Your task to perform on an android device: check storage Image 0: 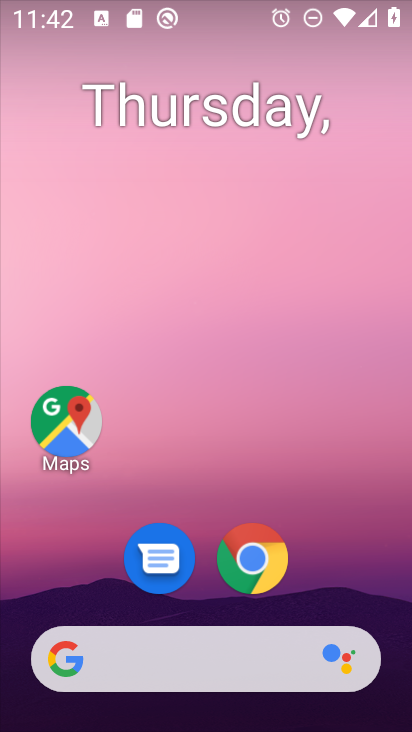
Step 0: drag from (395, 601) to (298, 220)
Your task to perform on an android device: check storage Image 1: 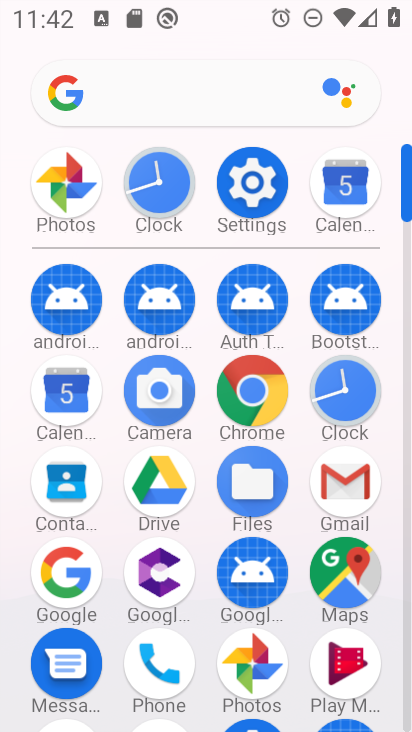
Step 1: click (406, 690)
Your task to perform on an android device: check storage Image 2: 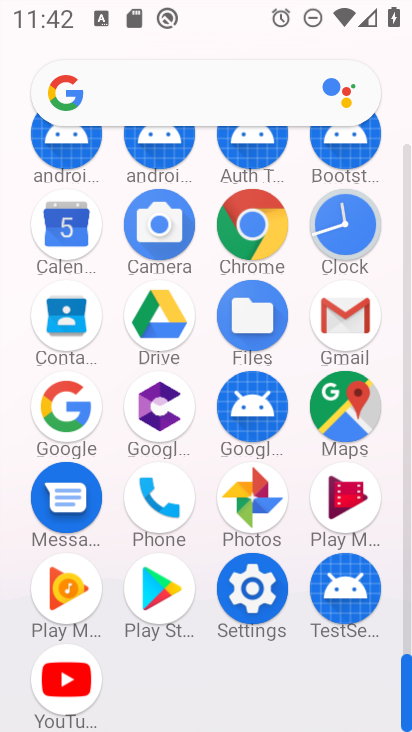
Step 2: click (252, 589)
Your task to perform on an android device: check storage Image 3: 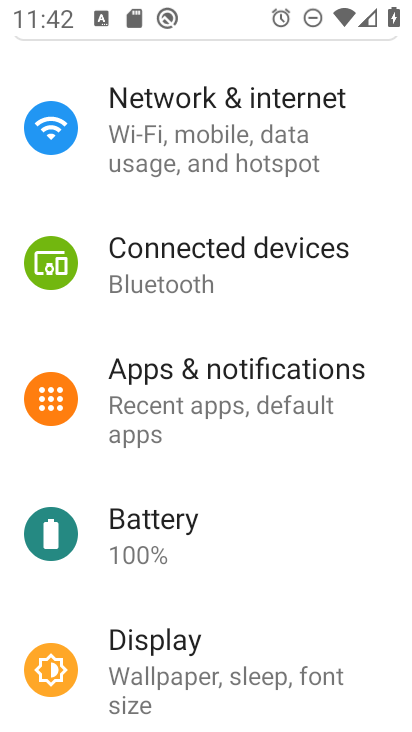
Step 3: drag from (298, 601) to (343, 302)
Your task to perform on an android device: check storage Image 4: 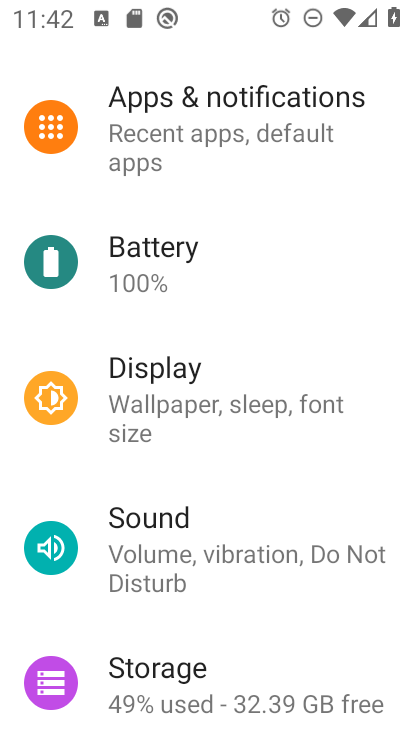
Step 4: drag from (321, 573) to (340, 271)
Your task to perform on an android device: check storage Image 5: 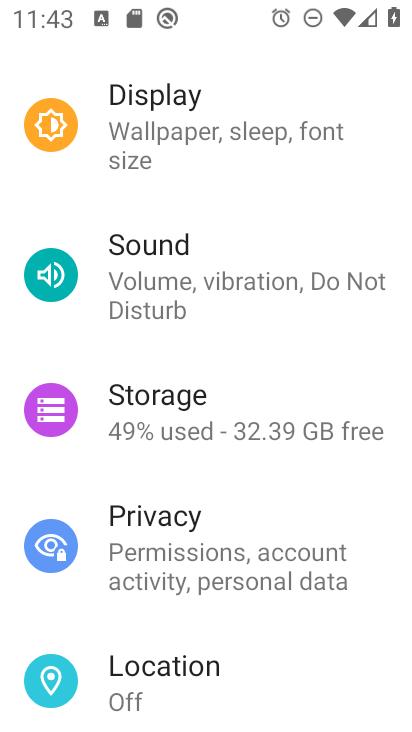
Step 5: click (164, 405)
Your task to perform on an android device: check storage Image 6: 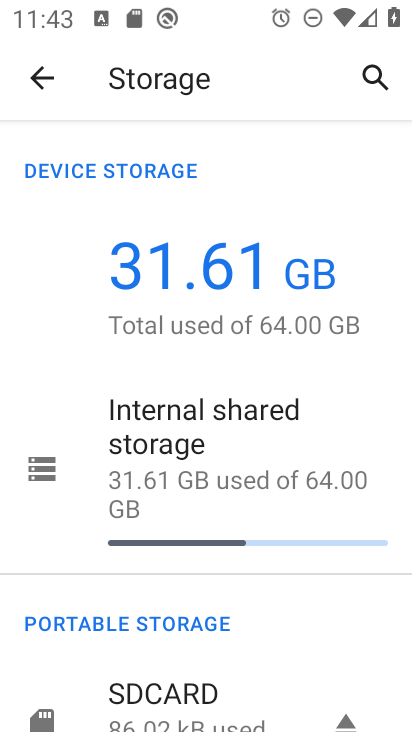
Step 6: task complete